Your task to perform on an android device: What's the weather? Image 0: 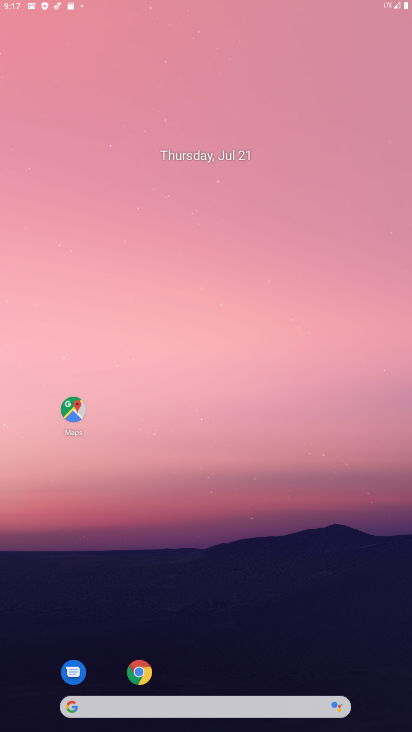
Step 0: click (265, 225)
Your task to perform on an android device: What's the weather? Image 1: 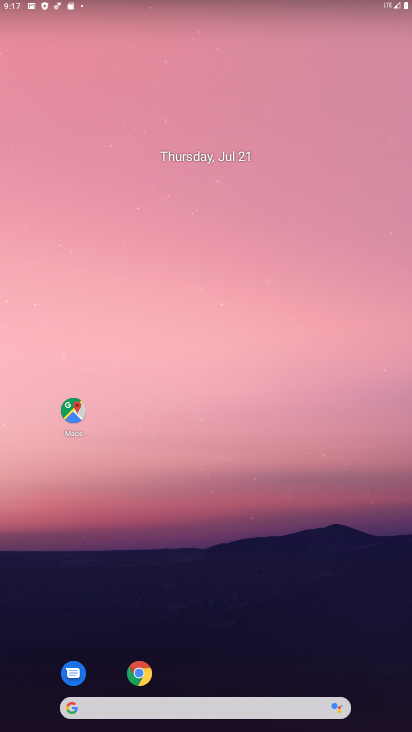
Step 1: drag from (202, 620) to (203, 160)
Your task to perform on an android device: What's the weather? Image 2: 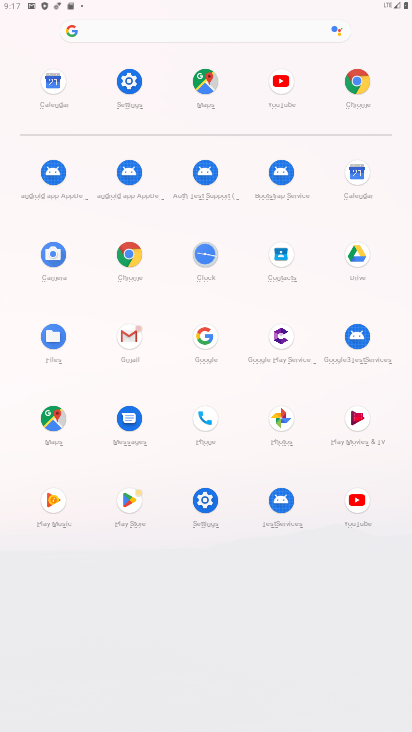
Step 2: click (48, 420)
Your task to perform on an android device: What's the weather? Image 3: 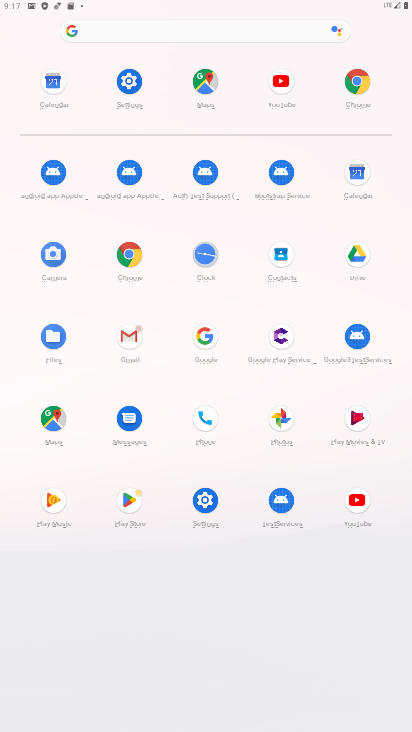
Step 3: click (48, 420)
Your task to perform on an android device: What's the weather? Image 4: 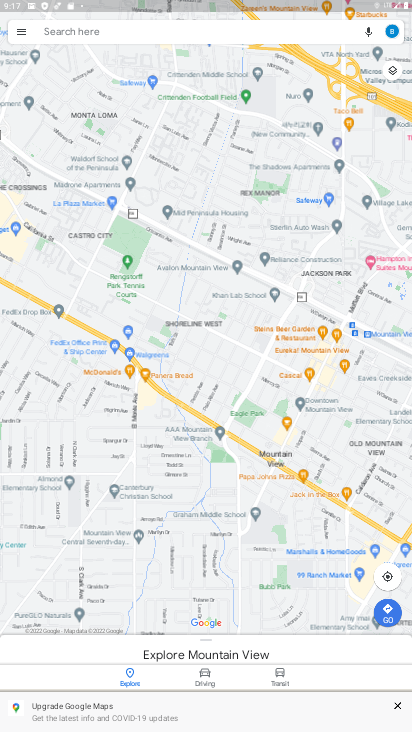
Step 4: press home button
Your task to perform on an android device: What's the weather? Image 5: 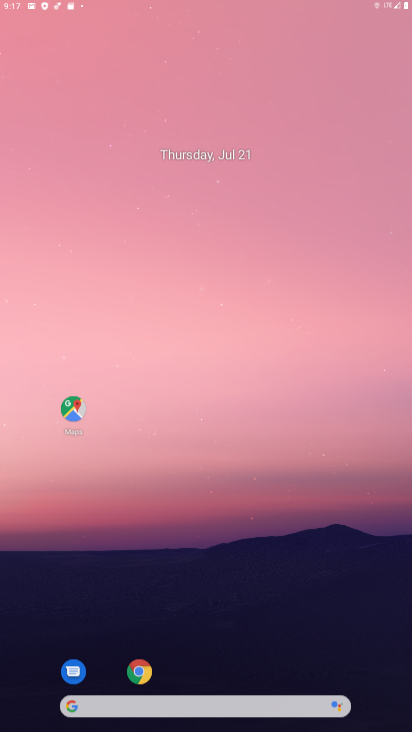
Step 5: drag from (247, 536) to (291, 186)
Your task to perform on an android device: What's the weather? Image 6: 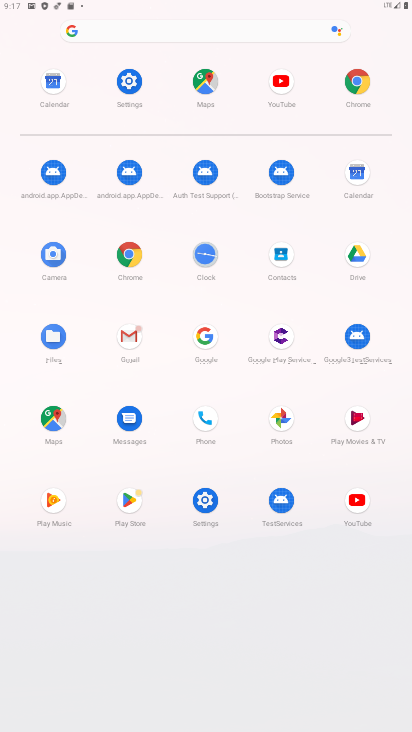
Step 6: click (142, 29)
Your task to perform on an android device: What's the weather? Image 7: 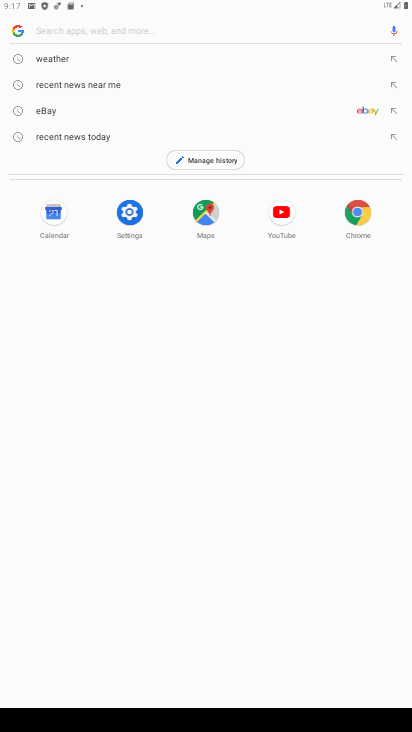
Step 7: click (93, 62)
Your task to perform on an android device: What's the weather? Image 8: 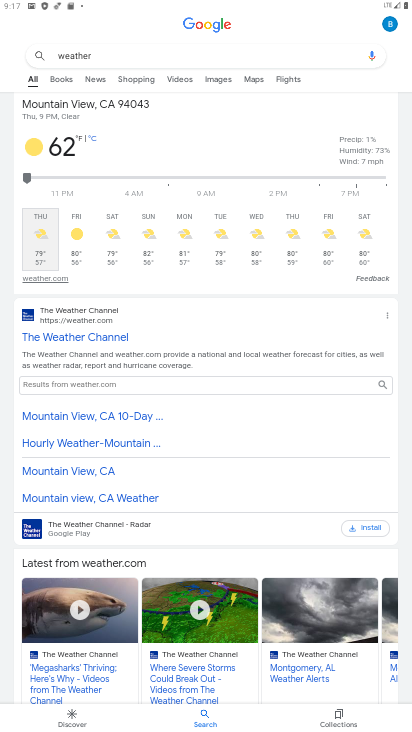
Step 8: task complete